Your task to perform on an android device: Open ESPN.com Image 0: 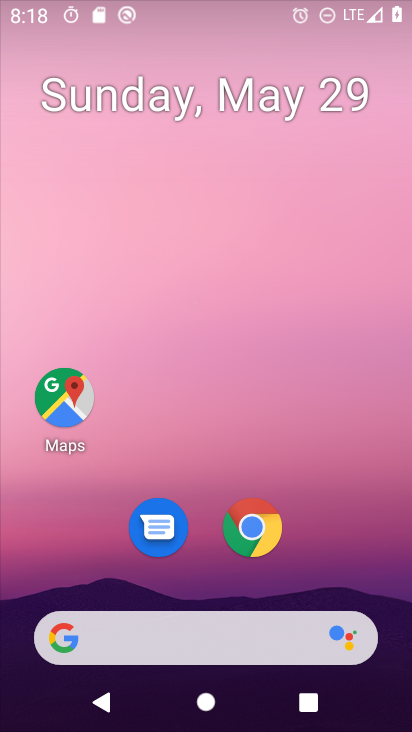
Step 0: drag from (316, 175) to (250, 25)
Your task to perform on an android device: Open ESPN.com Image 1: 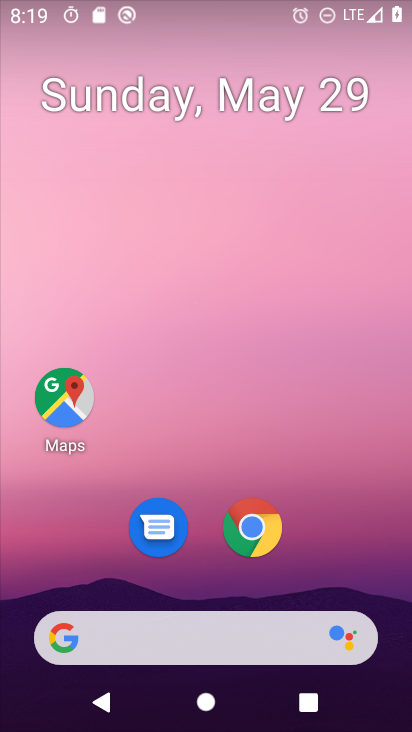
Step 1: drag from (395, 572) to (281, 9)
Your task to perform on an android device: Open ESPN.com Image 2: 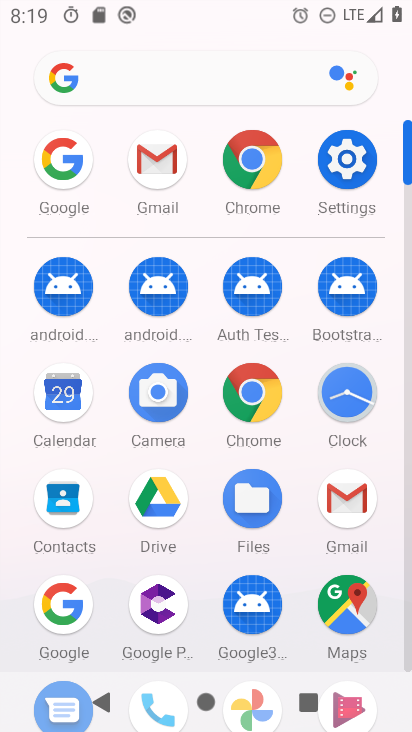
Step 2: click (48, 600)
Your task to perform on an android device: Open ESPN.com Image 3: 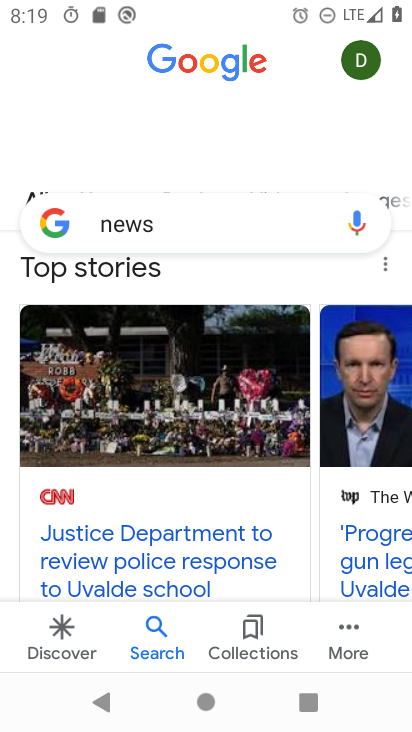
Step 3: press back button
Your task to perform on an android device: Open ESPN.com Image 4: 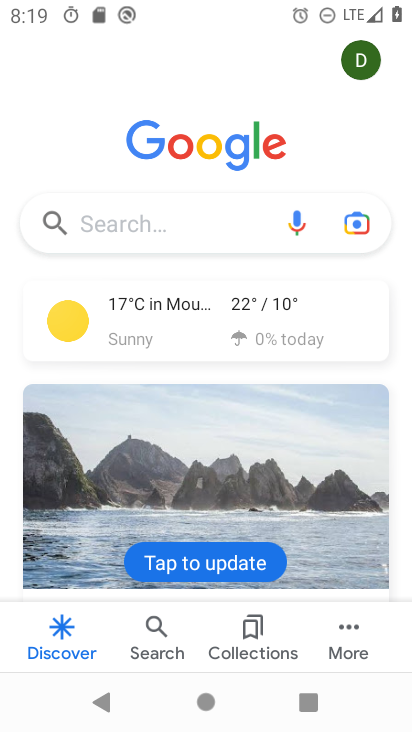
Step 4: click (130, 227)
Your task to perform on an android device: Open ESPN.com Image 5: 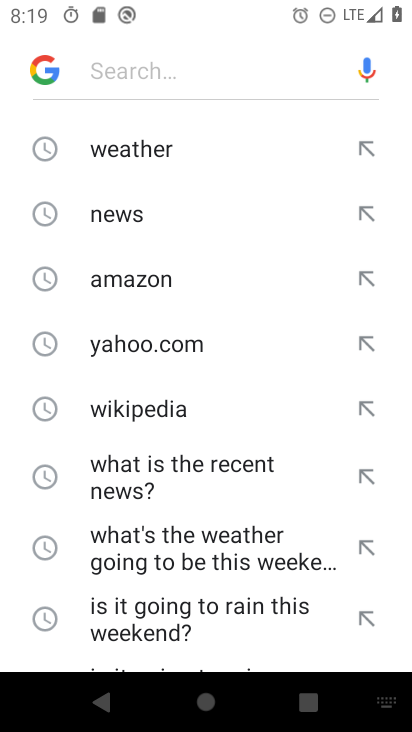
Step 5: drag from (130, 609) to (195, 88)
Your task to perform on an android device: Open ESPN.com Image 6: 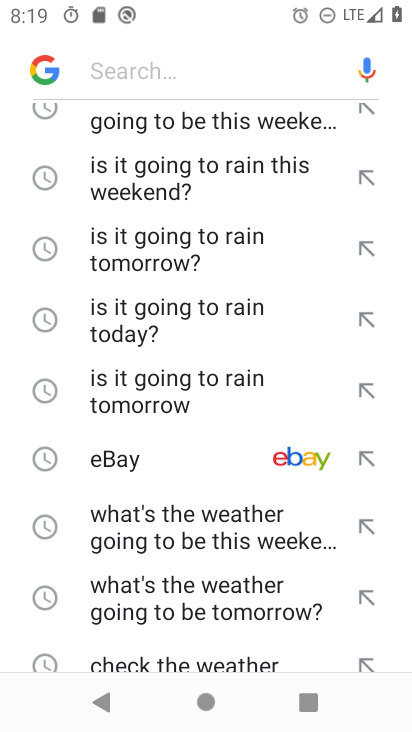
Step 6: drag from (118, 524) to (186, 54)
Your task to perform on an android device: Open ESPN.com Image 7: 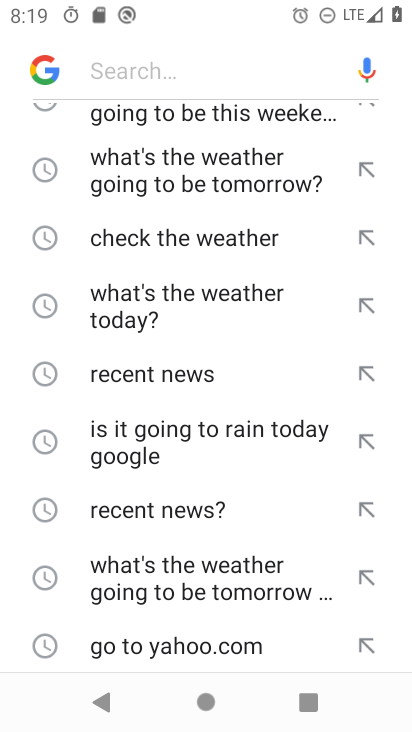
Step 7: drag from (119, 592) to (176, 99)
Your task to perform on an android device: Open ESPN.com Image 8: 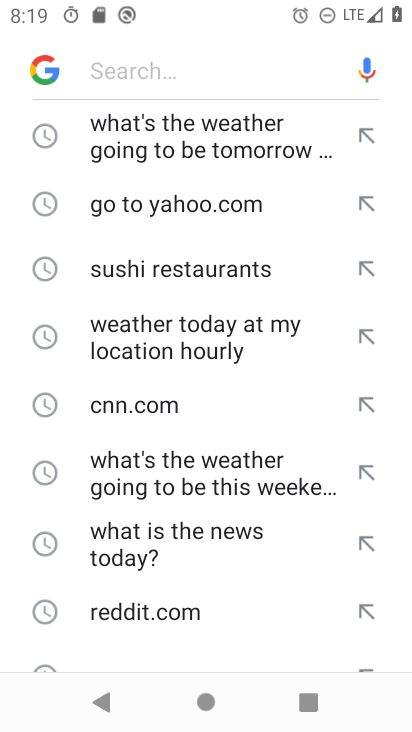
Step 8: drag from (120, 615) to (178, 174)
Your task to perform on an android device: Open ESPN.com Image 9: 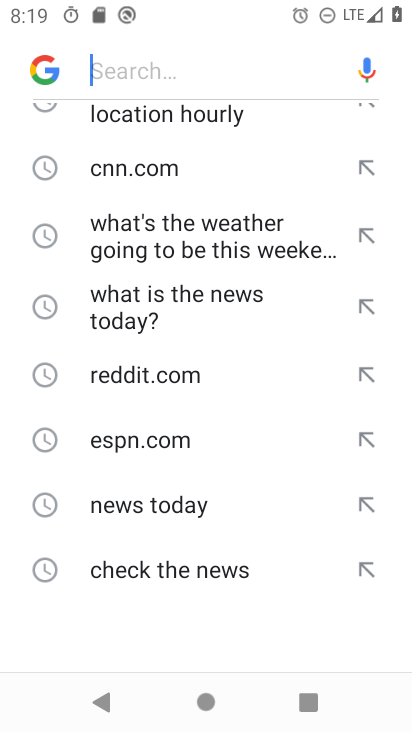
Step 9: click (175, 438)
Your task to perform on an android device: Open ESPN.com Image 10: 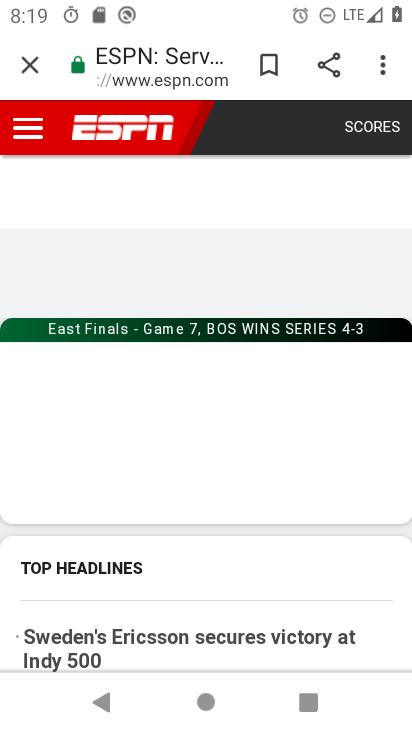
Step 10: task complete